Your task to perform on an android device: turn on improve location accuracy Image 0: 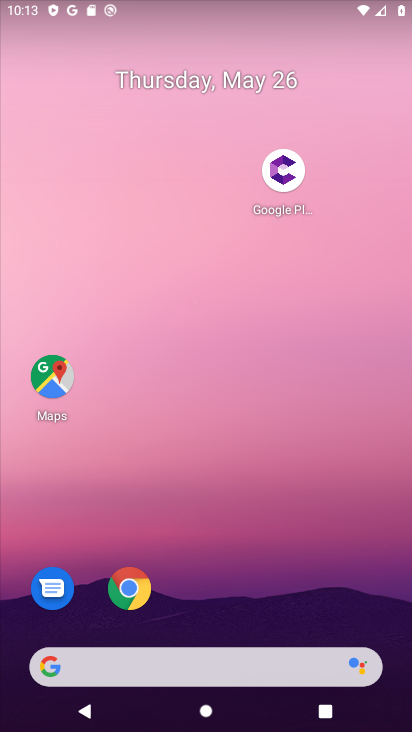
Step 0: click (28, 39)
Your task to perform on an android device: turn on improve location accuracy Image 1: 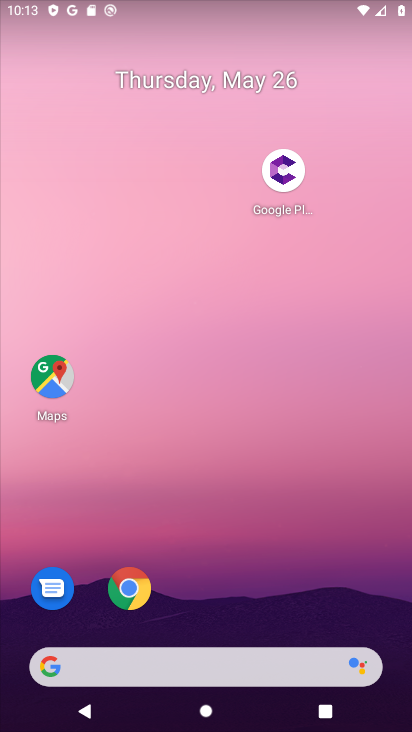
Step 1: drag from (256, 699) to (153, 131)
Your task to perform on an android device: turn on improve location accuracy Image 2: 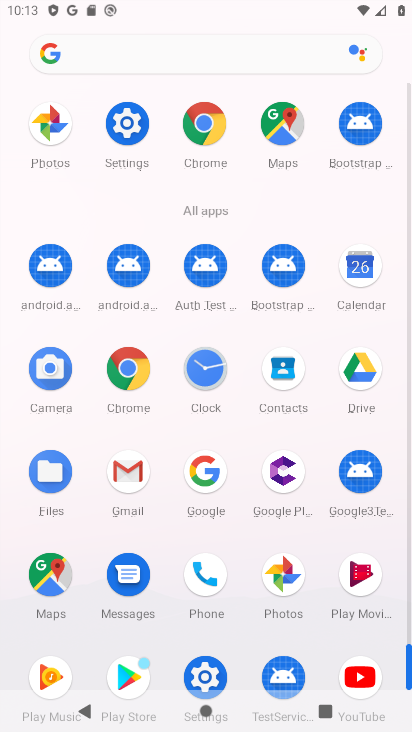
Step 2: click (124, 130)
Your task to perform on an android device: turn on improve location accuracy Image 3: 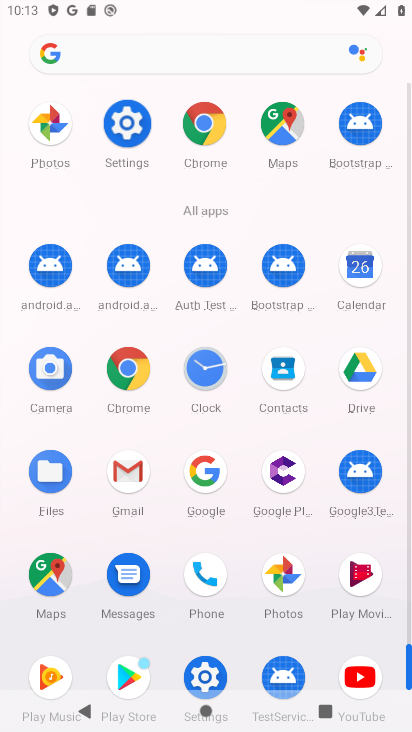
Step 3: click (127, 130)
Your task to perform on an android device: turn on improve location accuracy Image 4: 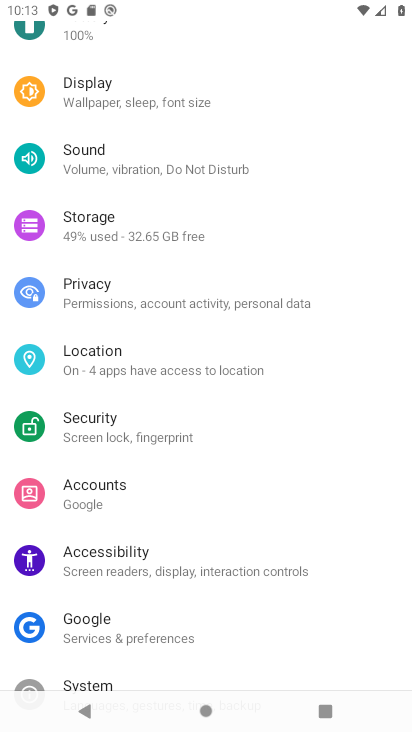
Step 4: click (97, 358)
Your task to perform on an android device: turn on improve location accuracy Image 5: 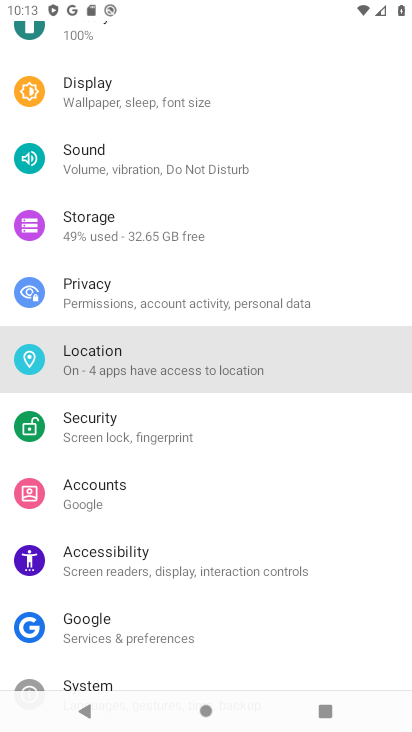
Step 5: click (99, 356)
Your task to perform on an android device: turn on improve location accuracy Image 6: 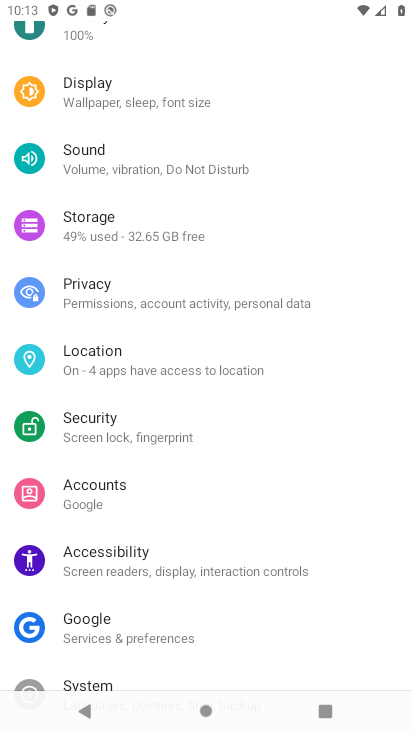
Step 6: click (100, 356)
Your task to perform on an android device: turn on improve location accuracy Image 7: 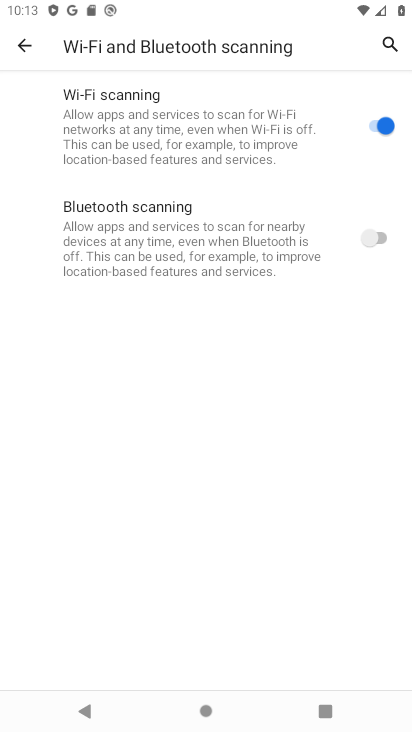
Step 7: click (22, 34)
Your task to perform on an android device: turn on improve location accuracy Image 8: 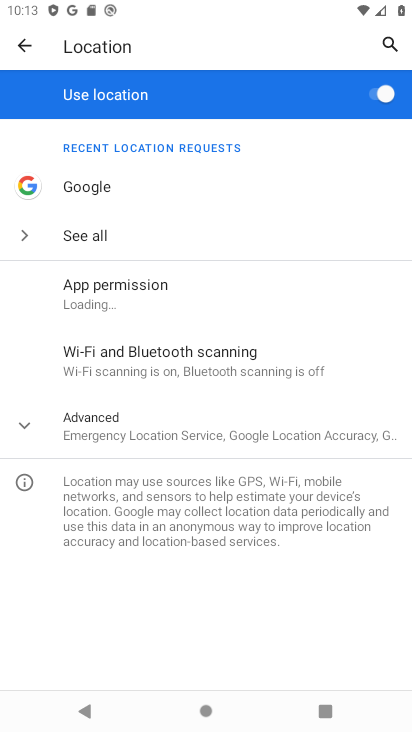
Step 8: click (137, 423)
Your task to perform on an android device: turn on improve location accuracy Image 9: 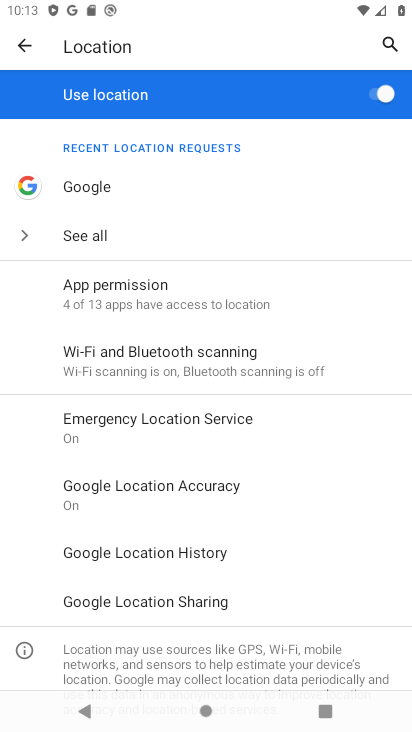
Step 9: click (163, 476)
Your task to perform on an android device: turn on improve location accuracy Image 10: 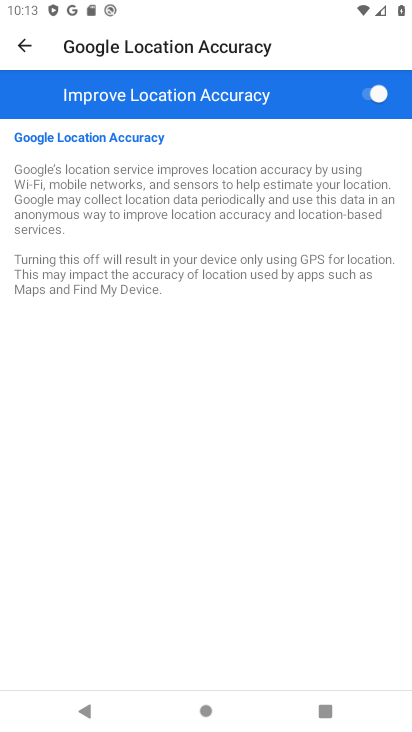
Step 10: task complete